Your task to perform on an android device: turn off data saver in the chrome app Image 0: 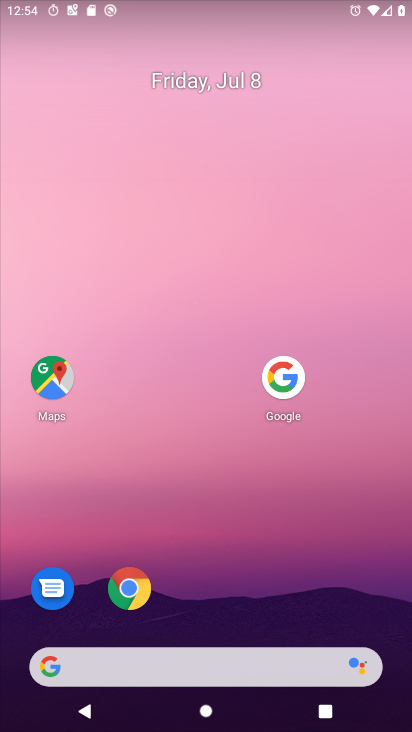
Step 0: click (137, 583)
Your task to perform on an android device: turn off data saver in the chrome app Image 1: 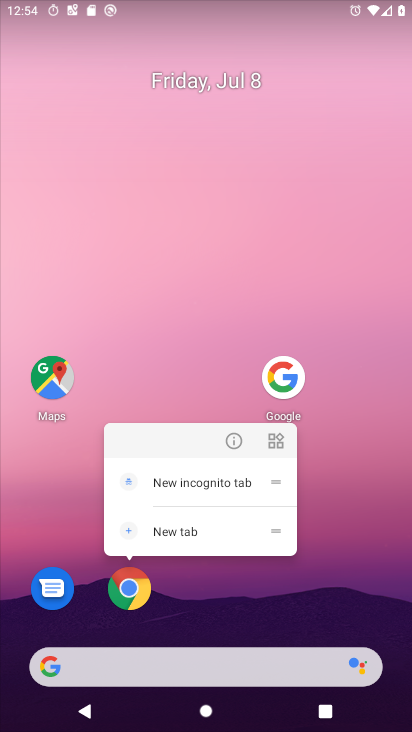
Step 1: click (133, 588)
Your task to perform on an android device: turn off data saver in the chrome app Image 2: 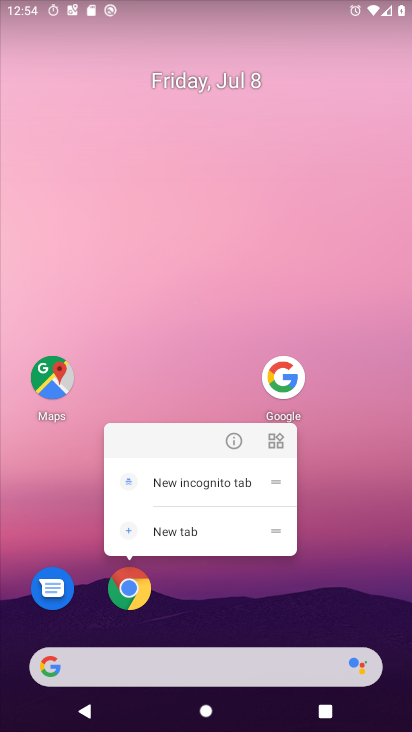
Step 2: click (132, 589)
Your task to perform on an android device: turn off data saver in the chrome app Image 3: 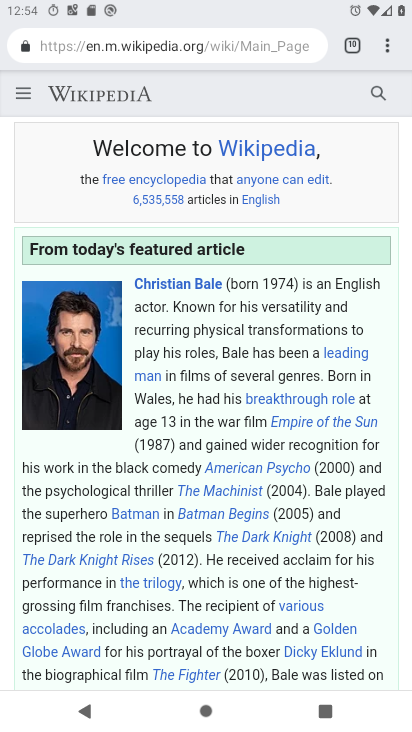
Step 3: drag from (385, 42) to (211, 546)
Your task to perform on an android device: turn off data saver in the chrome app Image 4: 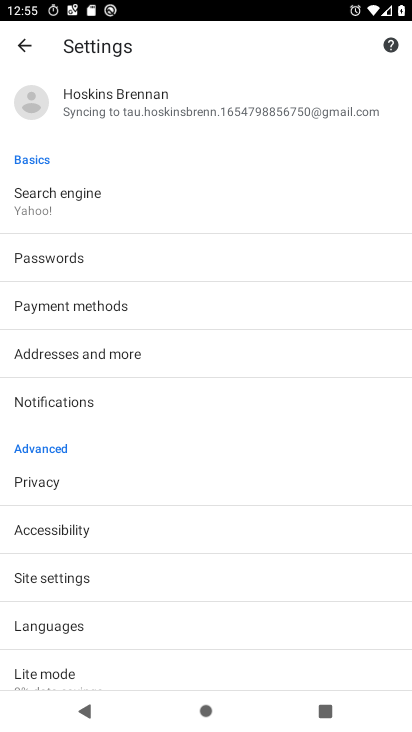
Step 4: click (49, 675)
Your task to perform on an android device: turn off data saver in the chrome app Image 5: 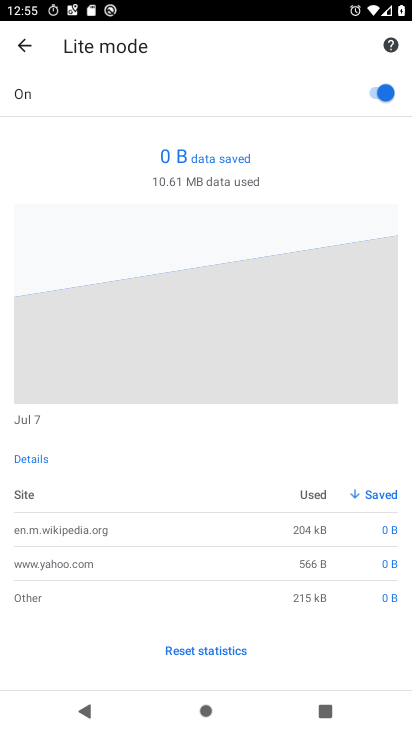
Step 5: click (373, 93)
Your task to perform on an android device: turn off data saver in the chrome app Image 6: 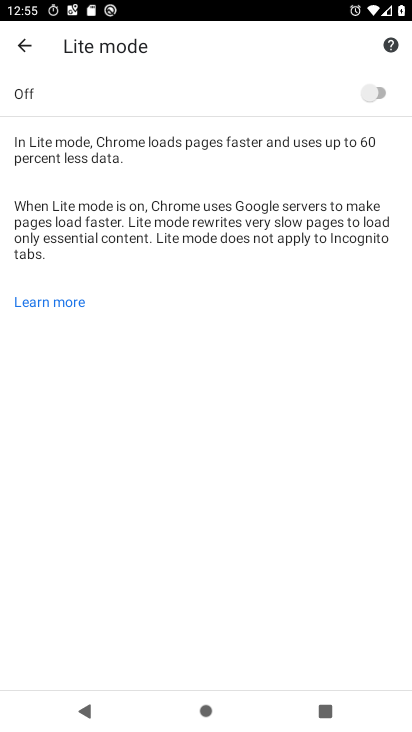
Step 6: task complete